Your task to perform on an android device: change text size in settings app Image 0: 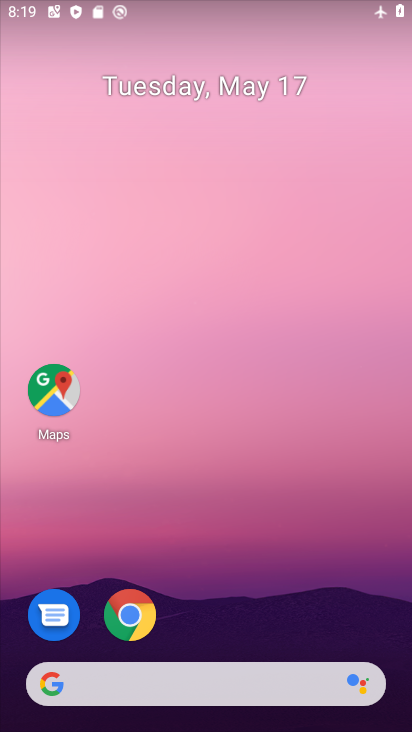
Step 0: drag from (238, 581) to (278, 178)
Your task to perform on an android device: change text size in settings app Image 1: 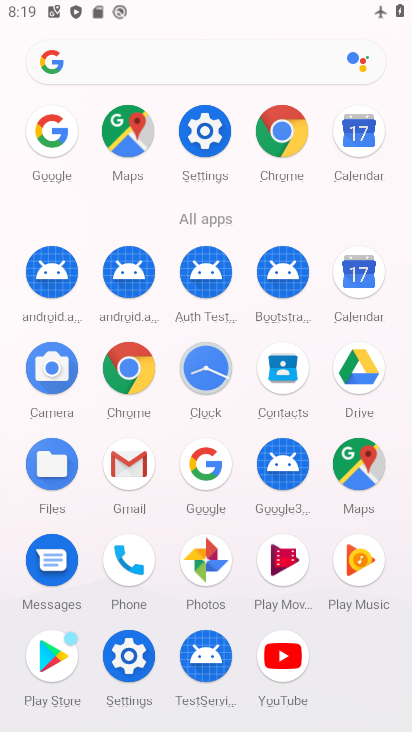
Step 1: click (193, 124)
Your task to perform on an android device: change text size in settings app Image 2: 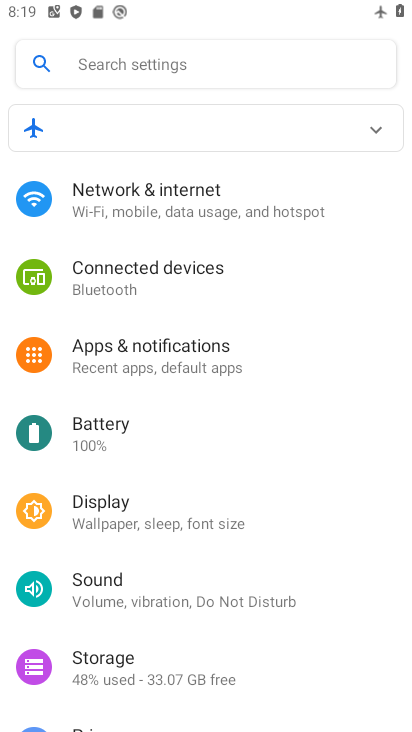
Step 2: drag from (189, 659) to (255, 286)
Your task to perform on an android device: change text size in settings app Image 3: 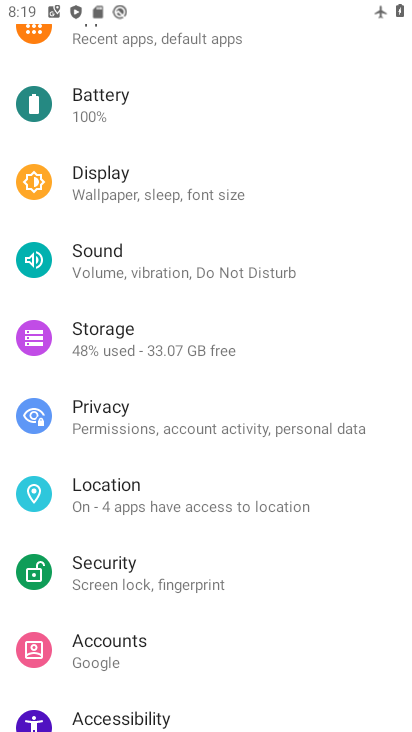
Step 3: drag from (271, 645) to (312, 235)
Your task to perform on an android device: change text size in settings app Image 4: 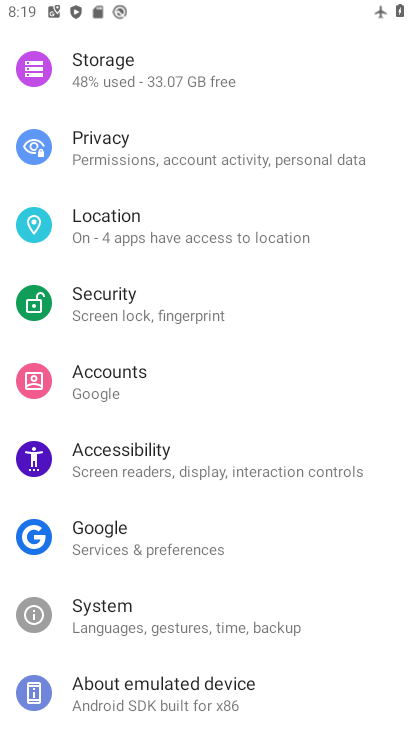
Step 4: click (139, 610)
Your task to perform on an android device: change text size in settings app Image 5: 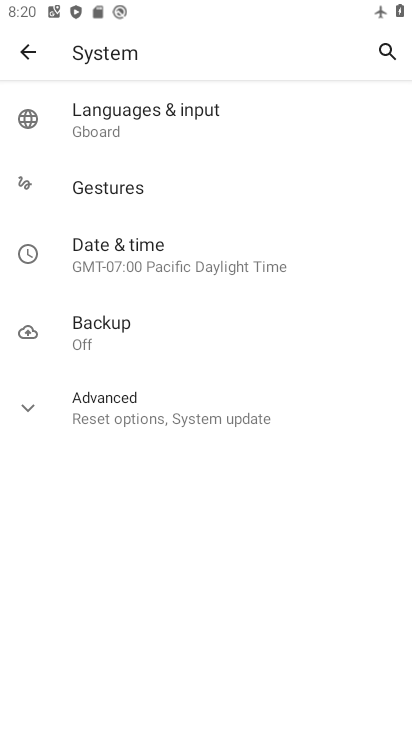
Step 5: press back button
Your task to perform on an android device: change text size in settings app Image 6: 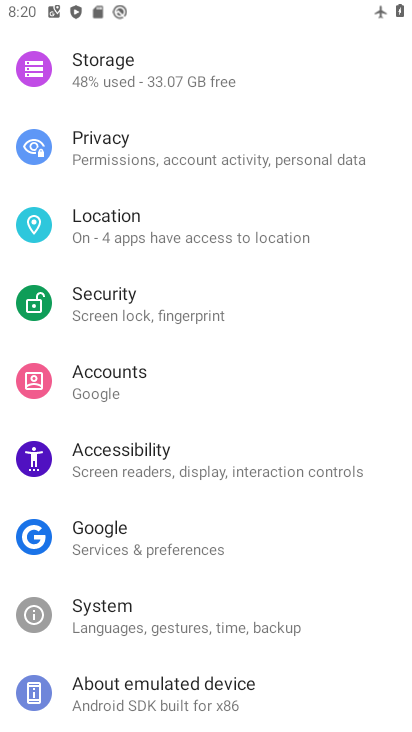
Step 6: click (162, 463)
Your task to perform on an android device: change text size in settings app Image 7: 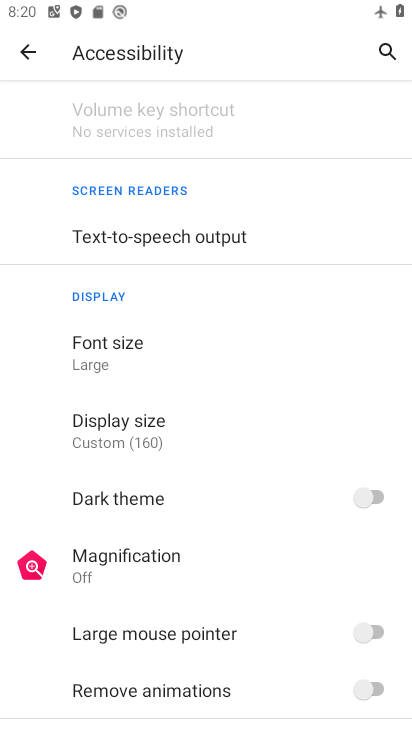
Step 7: click (148, 337)
Your task to perform on an android device: change text size in settings app Image 8: 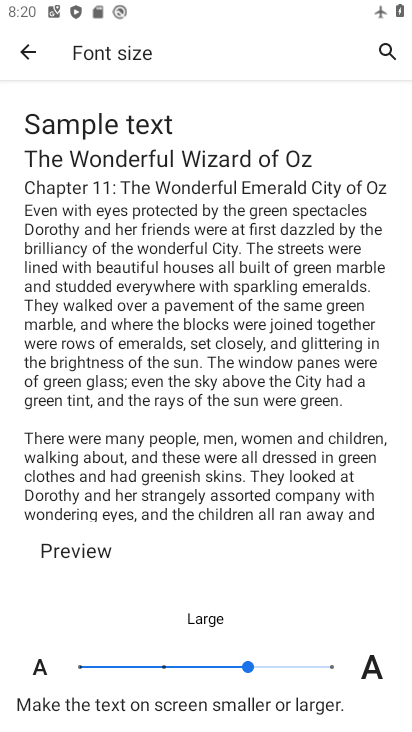
Step 8: click (176, 669)
Your task to perform on an android device: change text size in settings app Image 9: 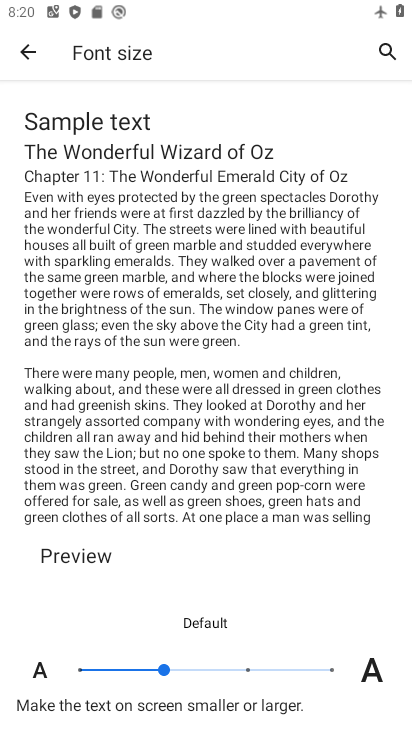
Step 9: task complete